Your task to perform on an android device: Go to location settings Image 0: 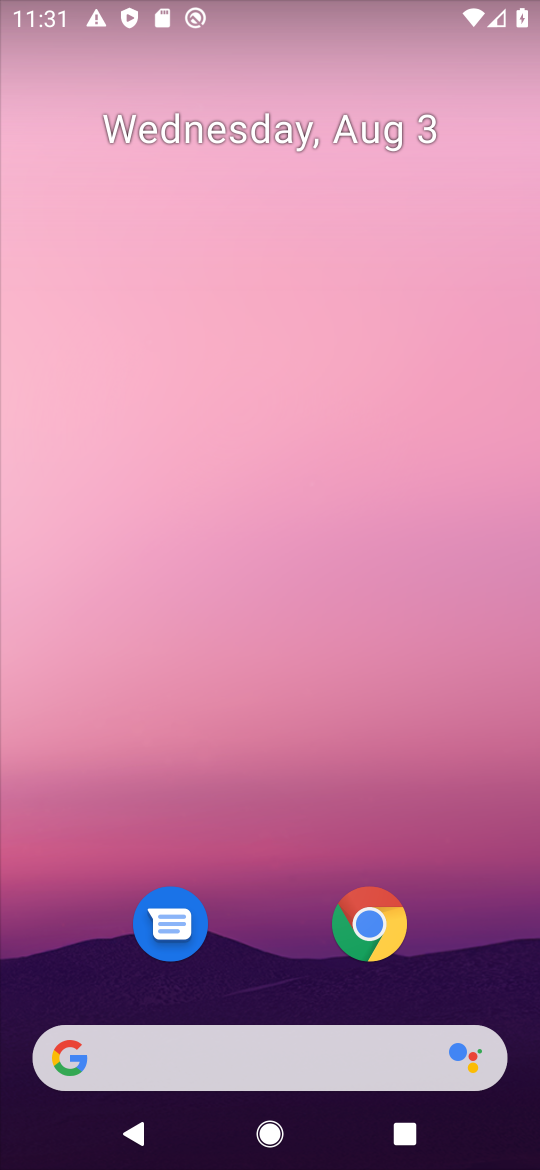
Step 0: drag from (124, 939) to (425, 12)
Your task to perform on an android device: Go to location settings Image 1: 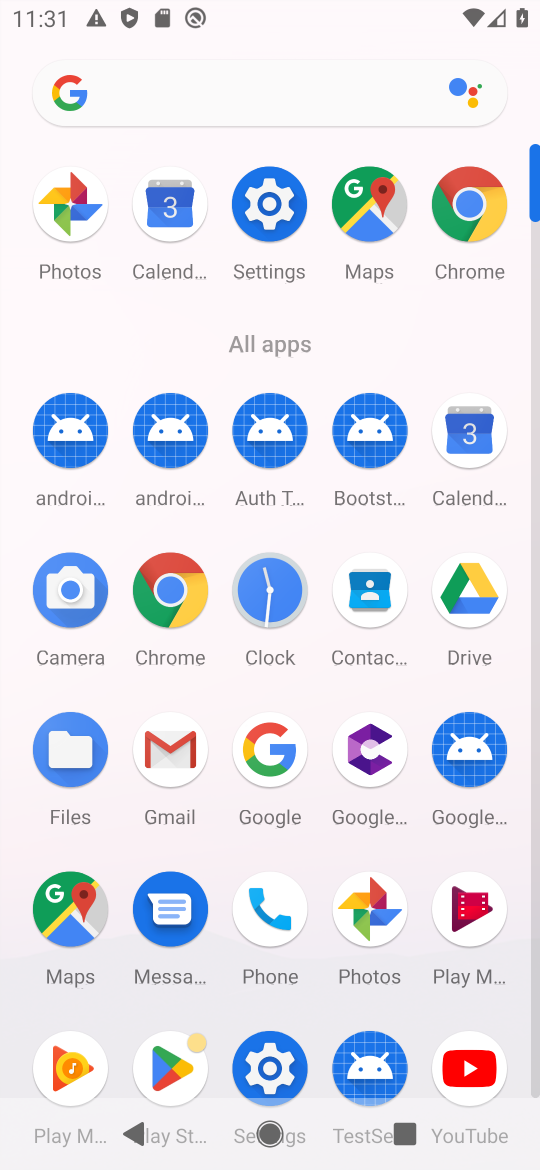
Step 1: click (272, 1063)
Your task to perform on an android device: Go to location settings Image 2: 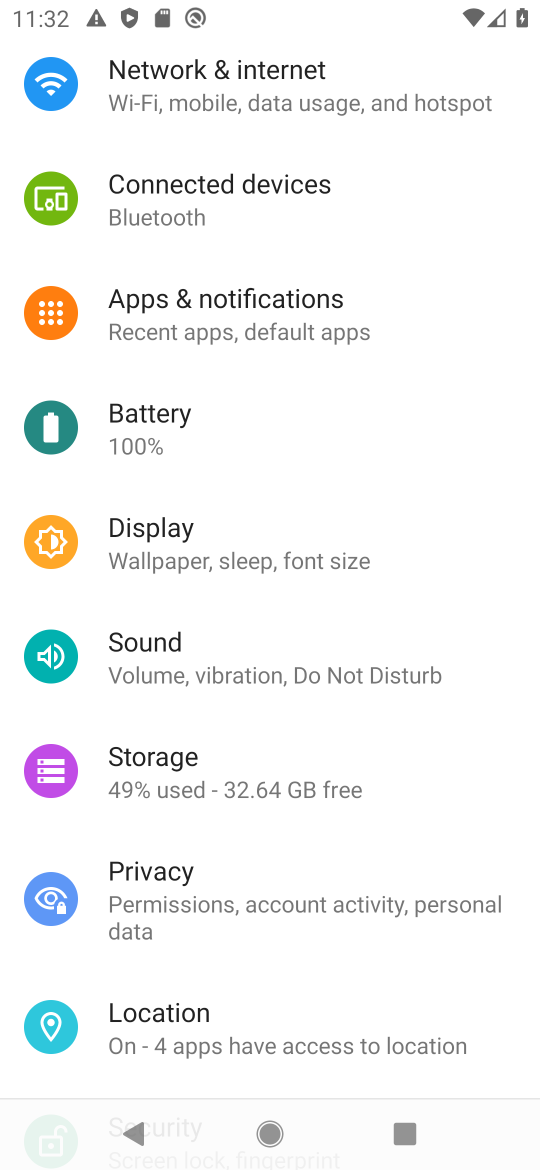
Step 2: click (205, 1019)
Your task to perform on an android device: Go to location settings Image 3: 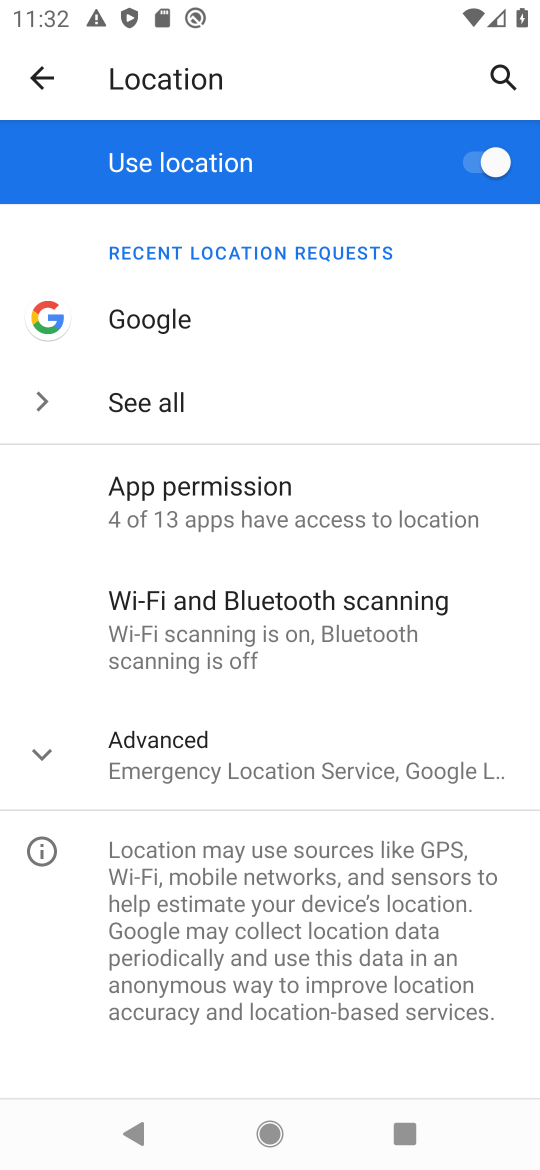
Step 3: task complete